Your task to perform on an android device: toggle translation in the chrome app Image 0: 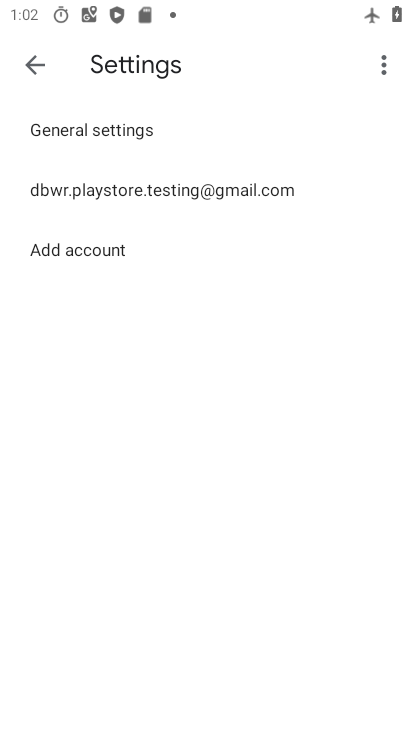
Step 0: press home button
Your task to perform on an android device: toggle translation in the chrome app Image 1: 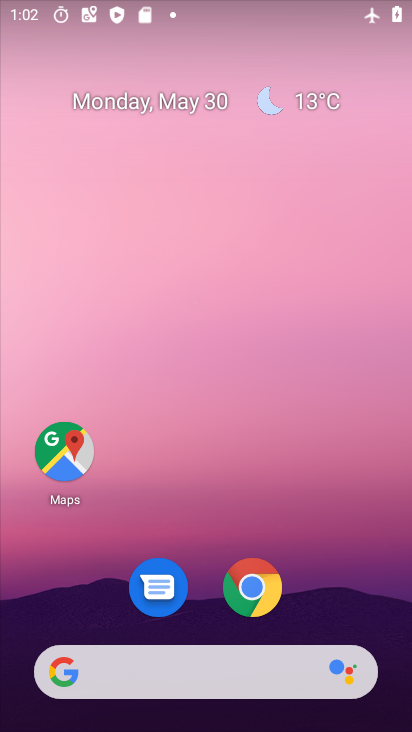
Step 1: click (245, 592)
Your task to perform on an android device: toggle translation in the chrome app Image 2: 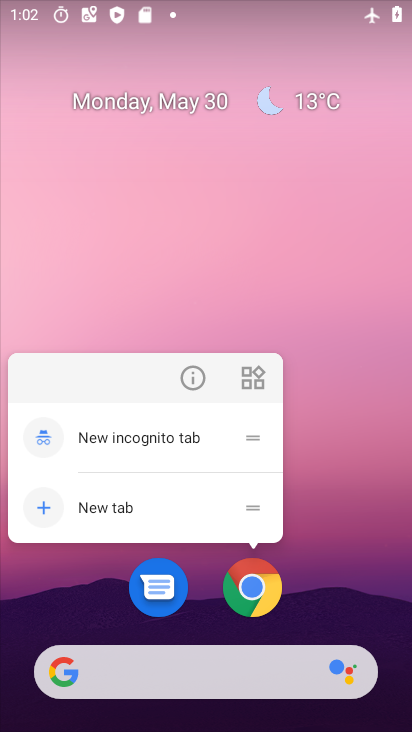
Step 2: click (253, 591)
Your task to perform on an android device: toggle translation in the chrome app Image 3: 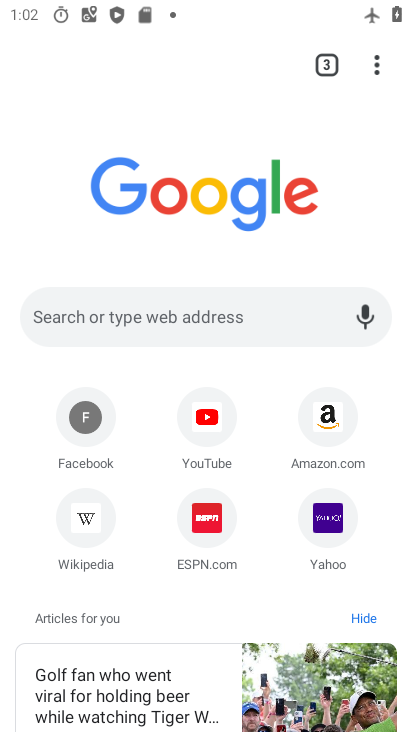
Step 3: click (379, 54)
Your task to perform on an android device: toggle translation in the chrome app Image 4: 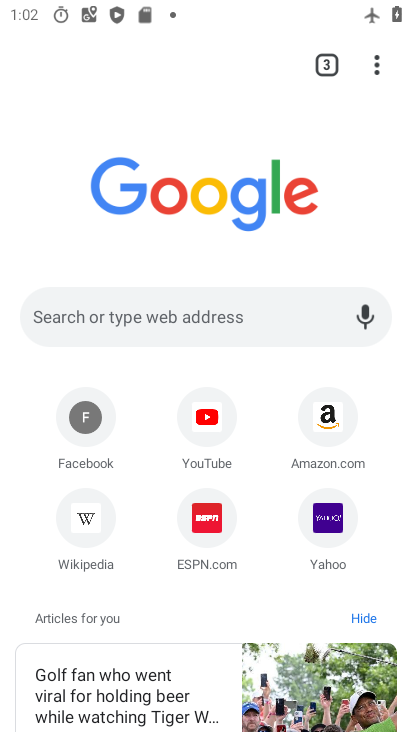
Step 4: drag from (376, 60) to (224, 540)
Your task to perform on an android device: toggle translation in the chrome app Image 5: 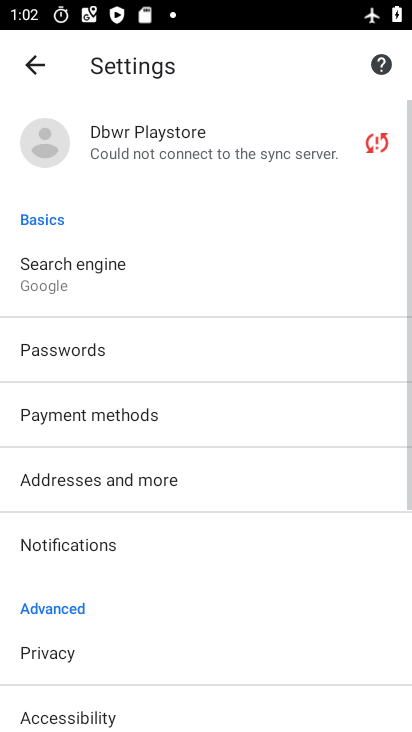
Step 5: drag from (210, 579) to (231, 0)
Your task to perform on an android device: toggle translation in the chrome app Image 6: 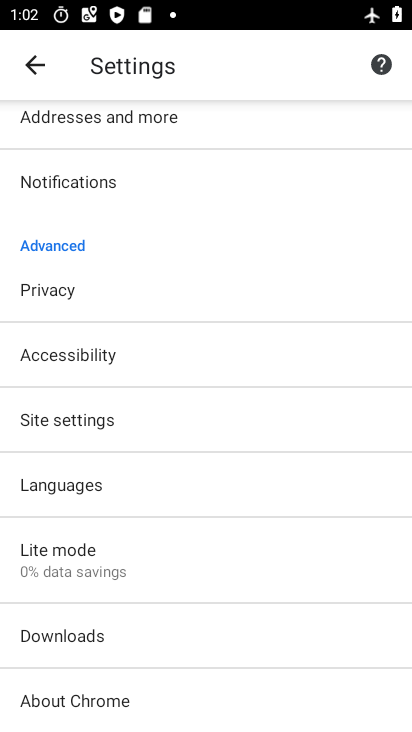
Step 6: click (148, 558)
Your task to perform on an android device: toggle translation in the chrome app Image 7: 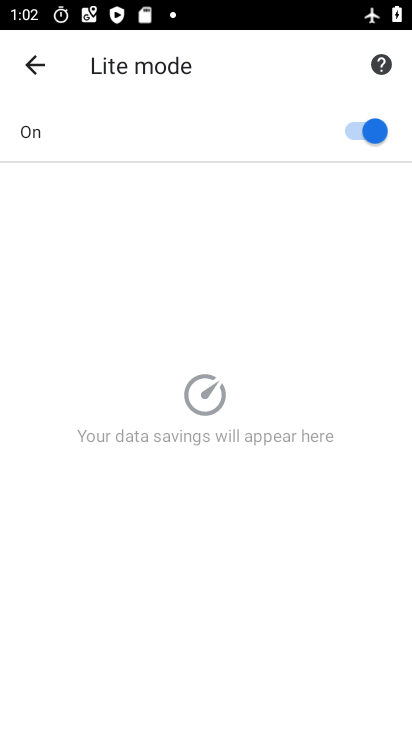
Step 7: click (39, 69)
Your task to perform on an android device: toggle translation in the chrome app Image 8: 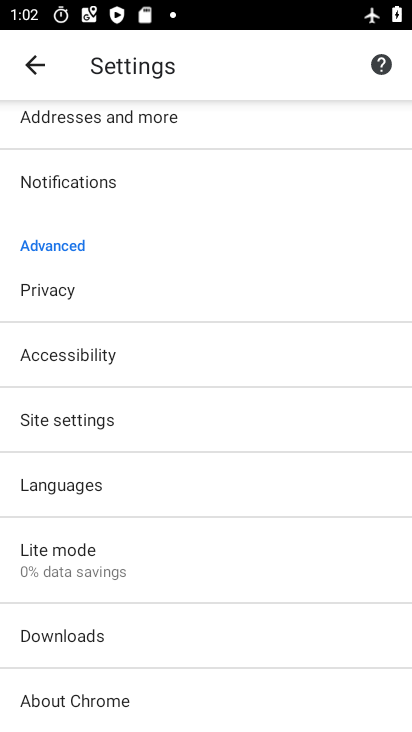
Step 8: click (121, 488)
Your task to perform on an android device: toggle translation in the chrome app Image 9: 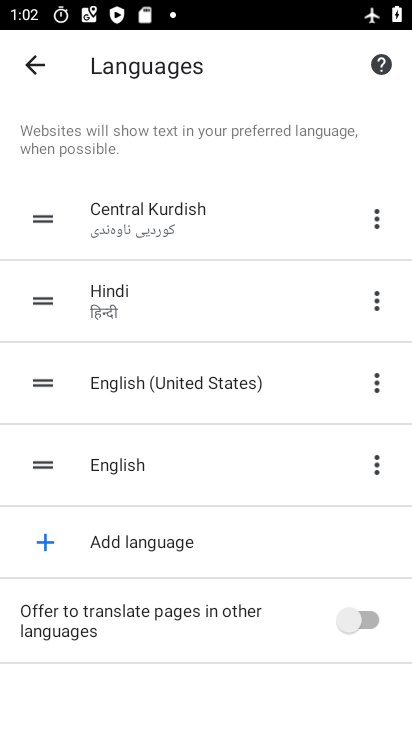
Step 9: click (368, 606)
Your task to perform on an android device: toggle translation in the chrome app Image 10: 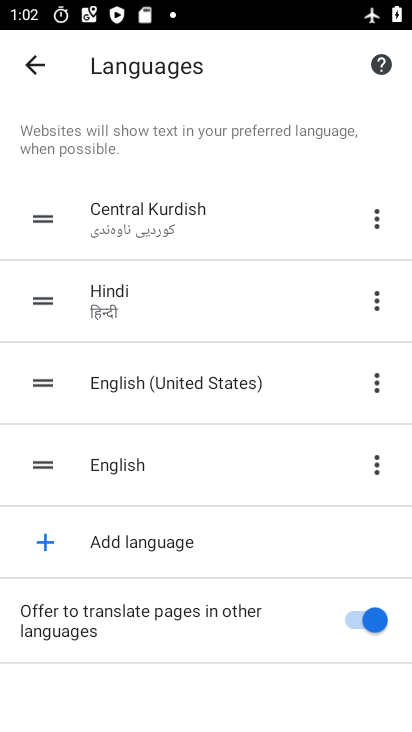
Step 10: task complete